Your task to perform on an android device: turn off location history Image 0: 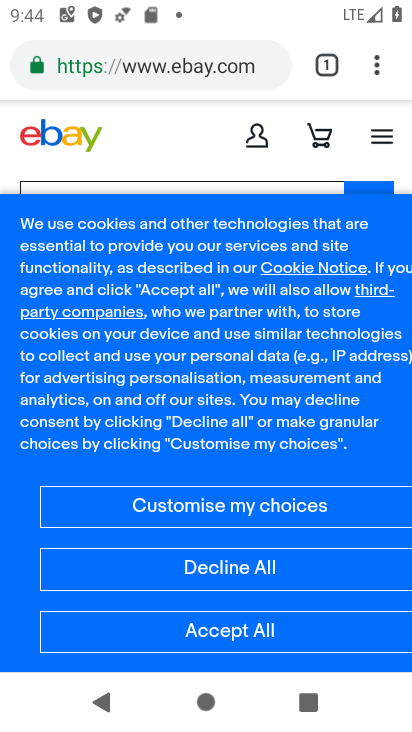
Step 0: press home button
Your task to perform on an android device: turn off location history Image 1: 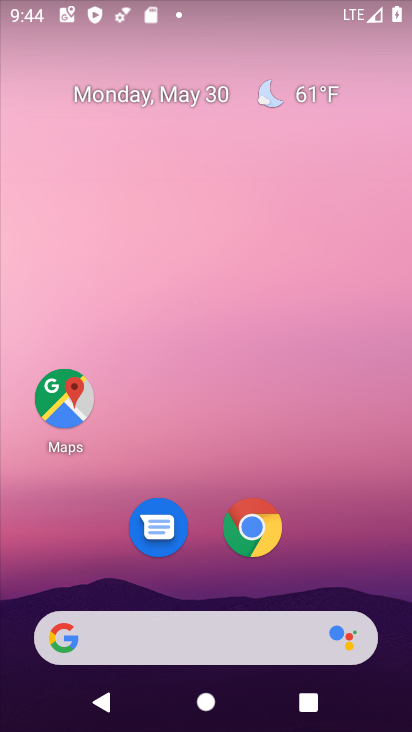
Step 1: drag from (342, 482) to (394, 340)
Your task to perform on an android device: turn off location history Image 2: 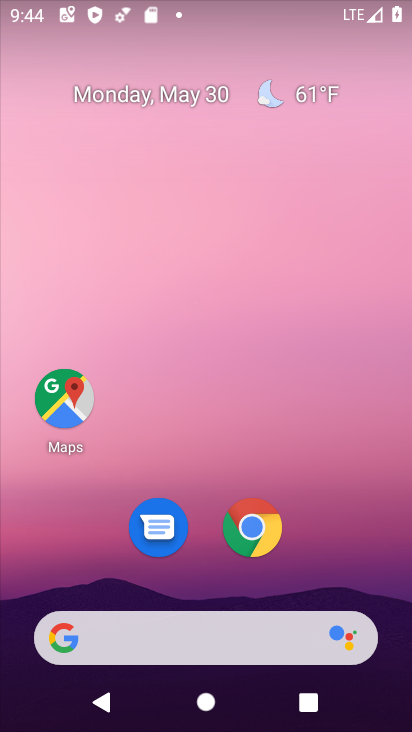
Step 2: drag from (315, 556) to (253, 9)
Your task to perform on an android device: turn off location history Image 3: 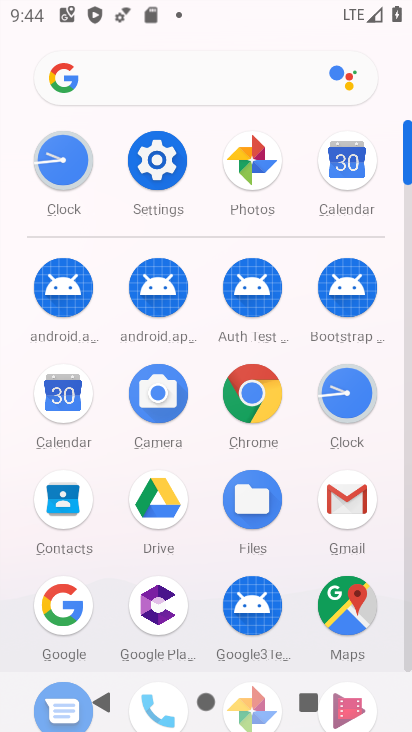
Step 3: click (153, 161)
Your task to perform on an android device: turn off location history Image 4: 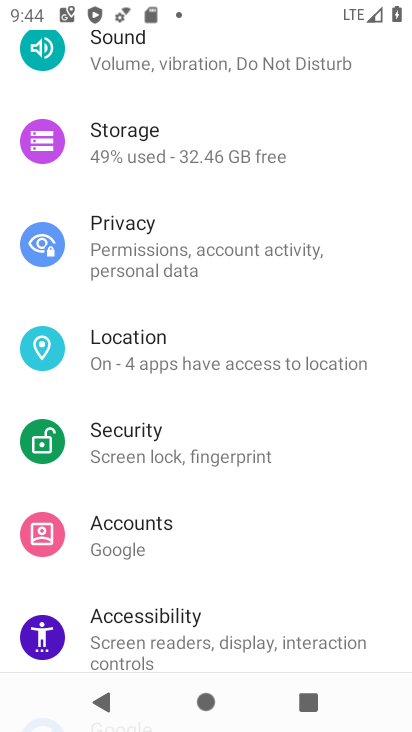
Step 4: click (184, 353)
Your task to perform on an android device: turn off location history Image 5: 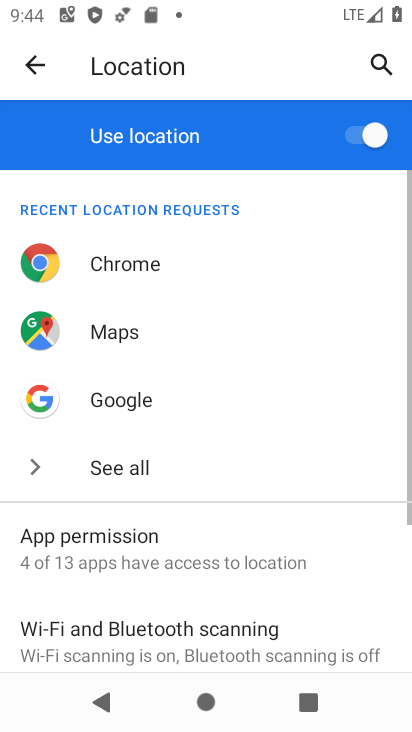
Step 5: drag from (256, 553) to (266, 29)
Your task to perform on an android device: turn off location history Image 6: 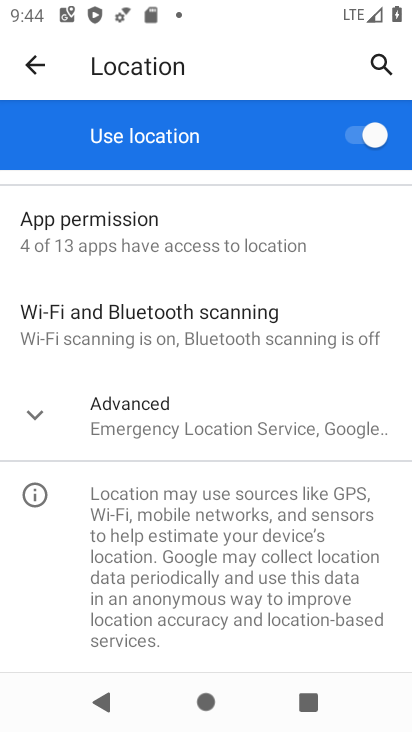
Step 6: click (173, 425)
Your task to perform on an android device: turn off location history Image 7: 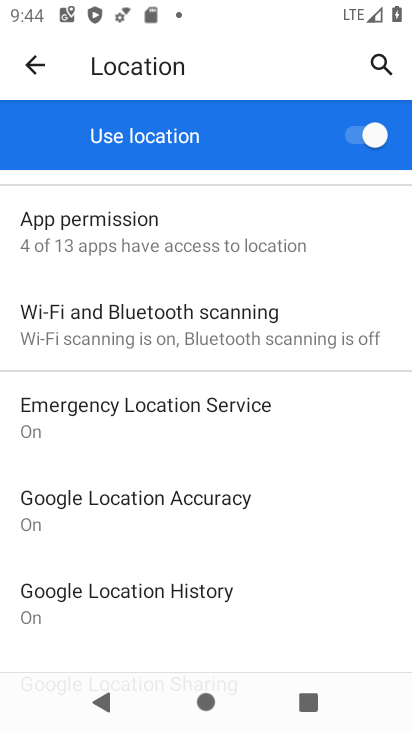
Step 7: click (180, 570)
Your task to perform on an android device: turn off location history Image 8: 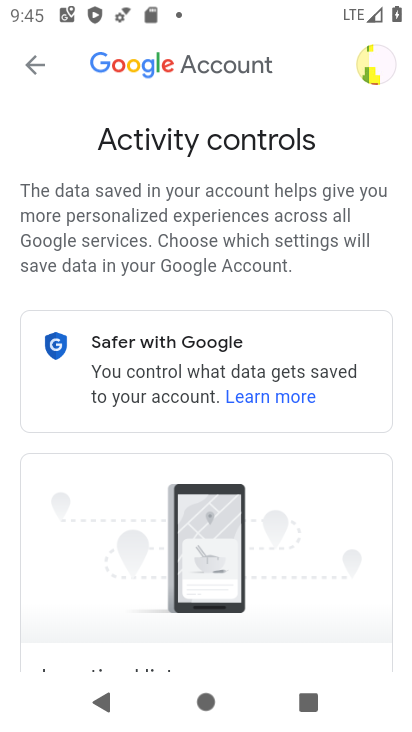
Step 8: task complete